Your task to perform on an android device: Turn off the flashlight Image 0: 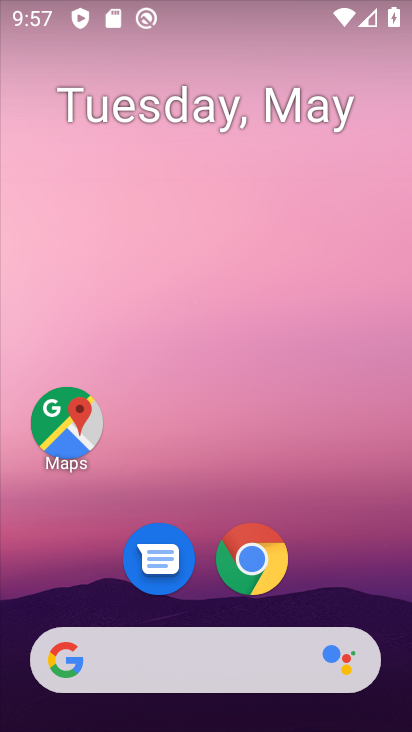
Step 0: click (207, 30)
Your task to perform on an android device: Turn off the flashlight Image 1: 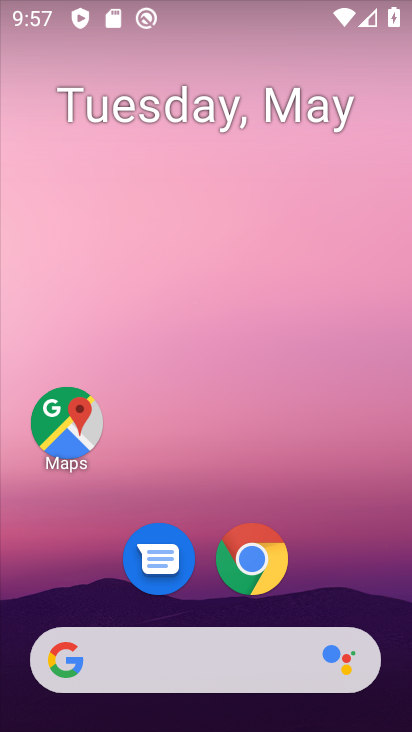
Step 1: task complete